Your task to perform on an android device: Go to Android settings Image 0: 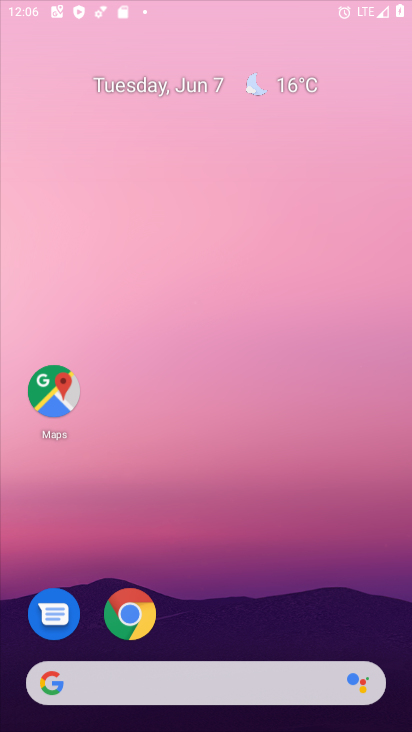
Step 0: press home button
Your task to perform on an android device: Go to Android settings Image 1: 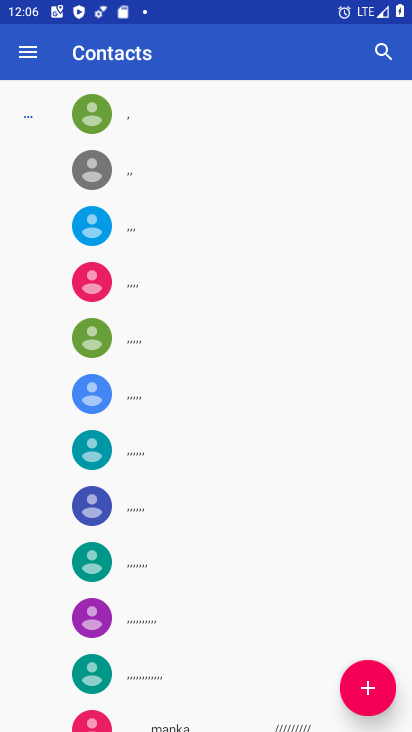
Step 1: drag from (8, 287) to (408, 298)
Your task to perform on an android device: Go to Android settings Image 2: 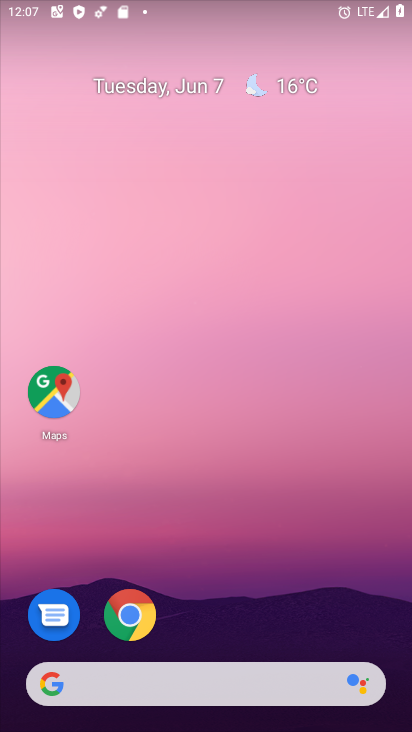
Step 2: drag from (236, 233) to (242, 63)
Your task to perform on an android device: Go to Android settings Image 3: 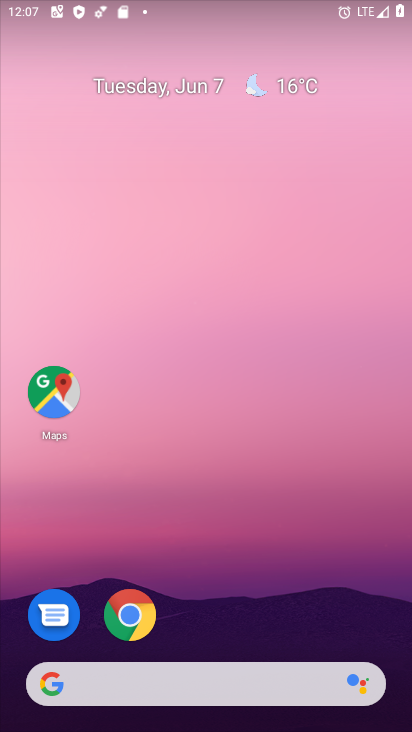
Step 3: drag from (220, 648) to (219, 23)
Your task to perform on an android device: Go to Android settings Image 4: 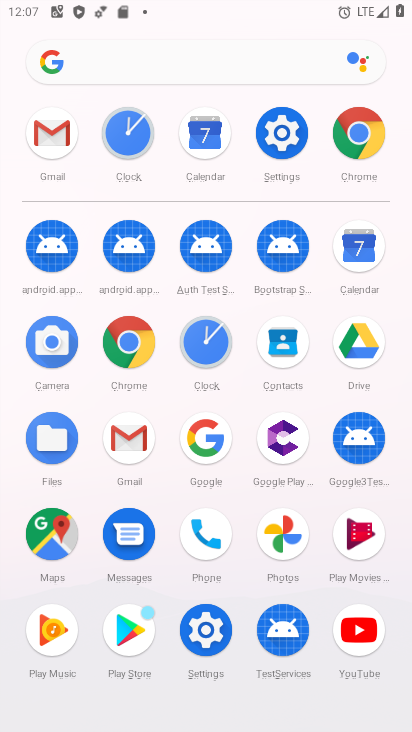
Step 4: click (205, 621)
Your task to perform on an android device: Go to Android settings Image 5: 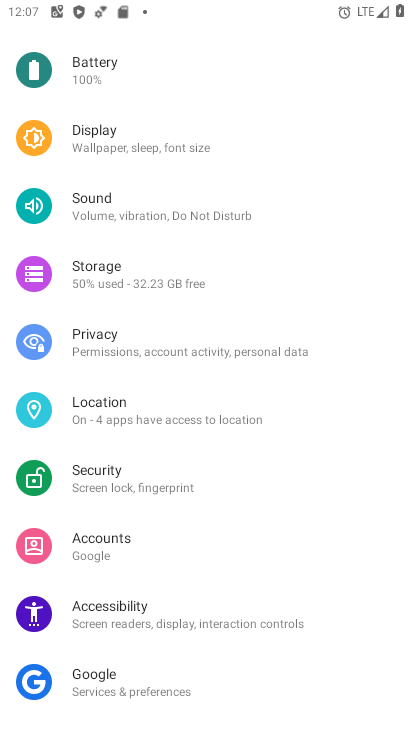
Step 5: drag from (181, 654) to (202, 66)
Your task to perform on an android device: Go to Android settings Image 6: 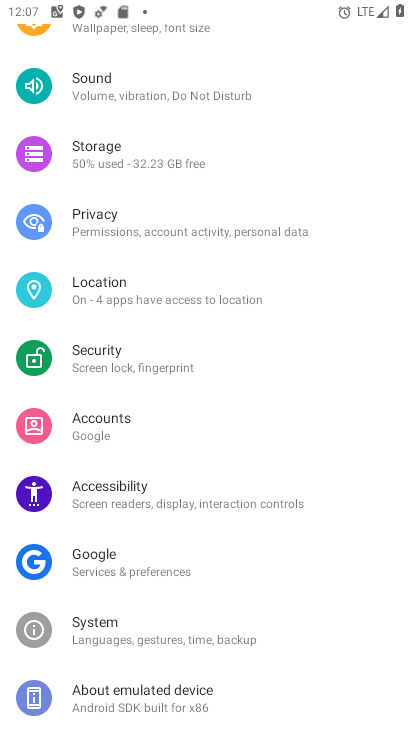
Step 6: click (224, 696)
Your task to perform on an android device: Go to Android settings Image 7: 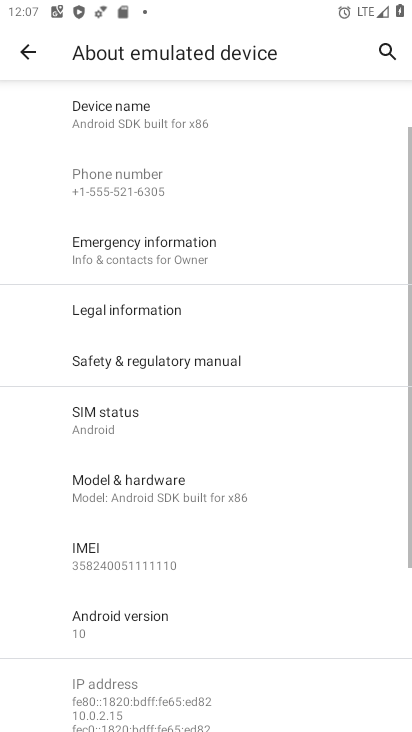
Step 7: click (131, 630)
Your task to perform on an android device: Go to Android settings Image 8: 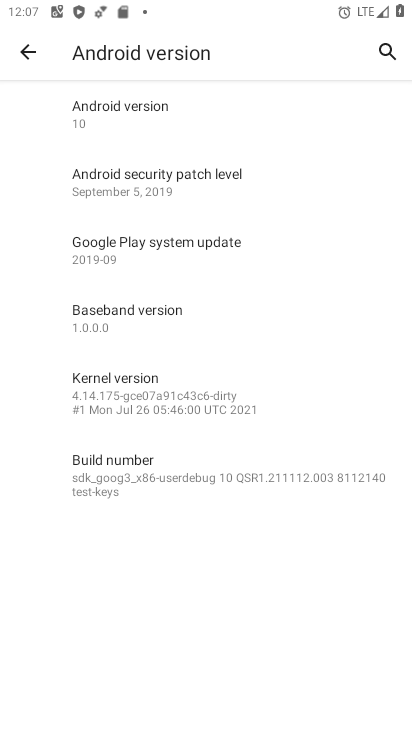
Step 8: task complete